Your task to perform on an android device: snooze an email in the gmail app Image 0: 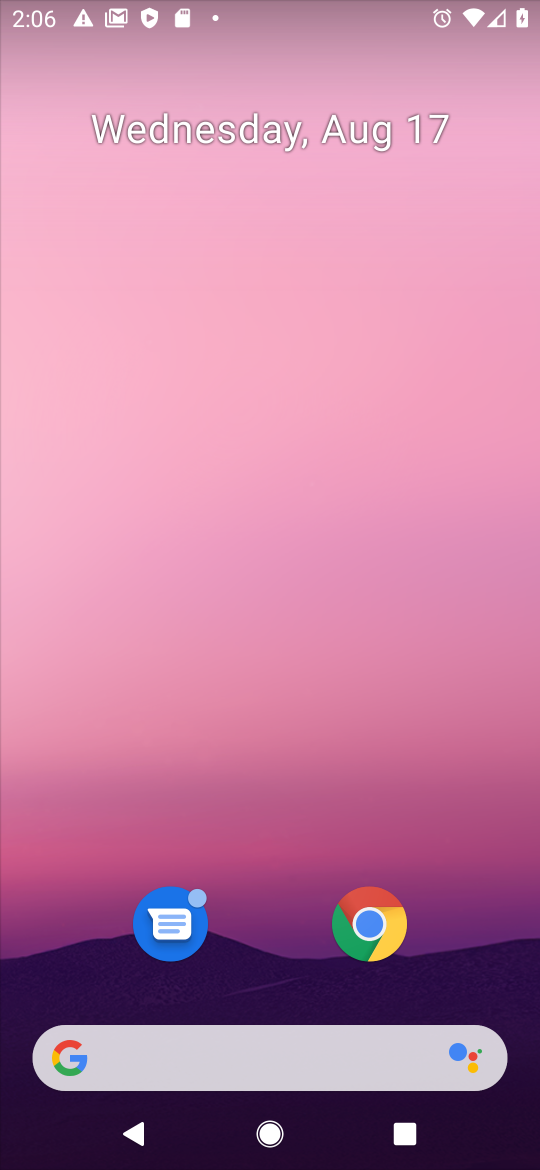
Step 0: drag from (246, 843) to (188, 208)
Your task to perform on an android device: snooze an email in the gmail app Image 1: 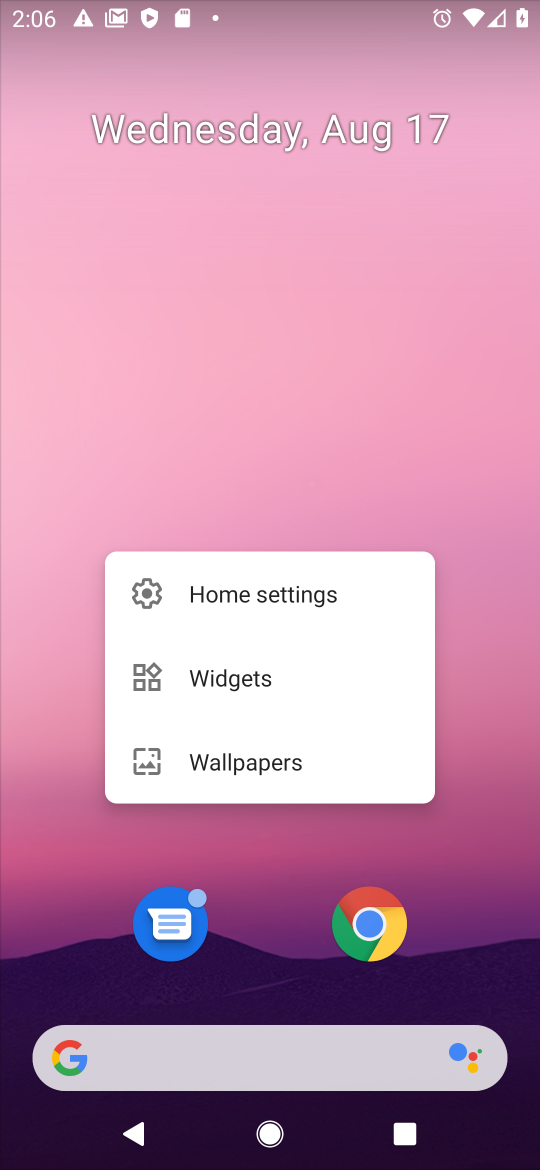
Step 1: click (254, 1001)
Your task to perform on an android device: snooze an email in the gmail app Image 2: 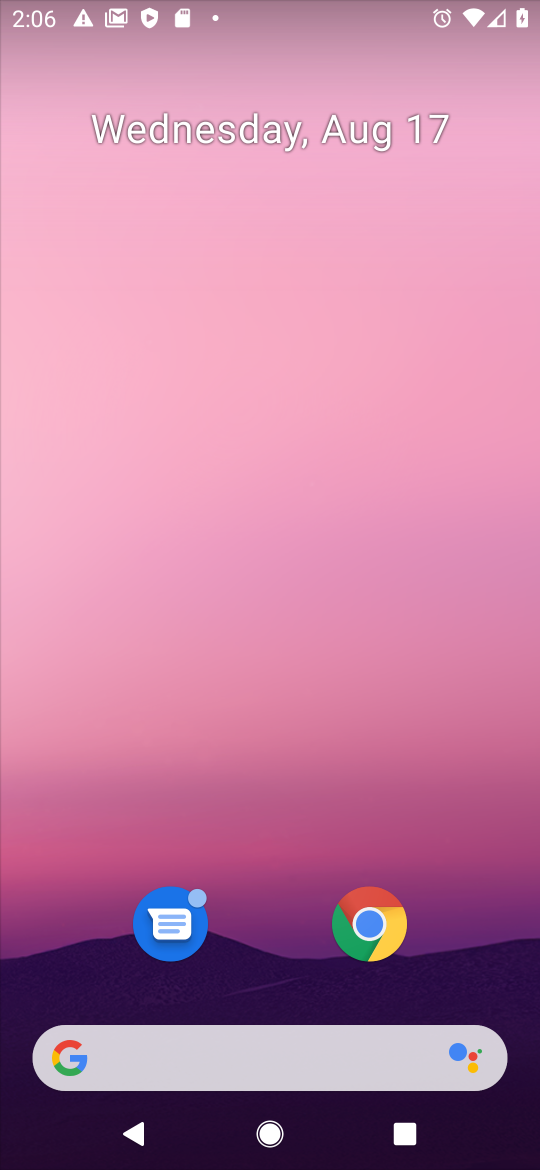
Step 2: drag from (226, 624) to (193, 254)
Your task to perform on an android device: snooze an email in the gmail app Image 3: 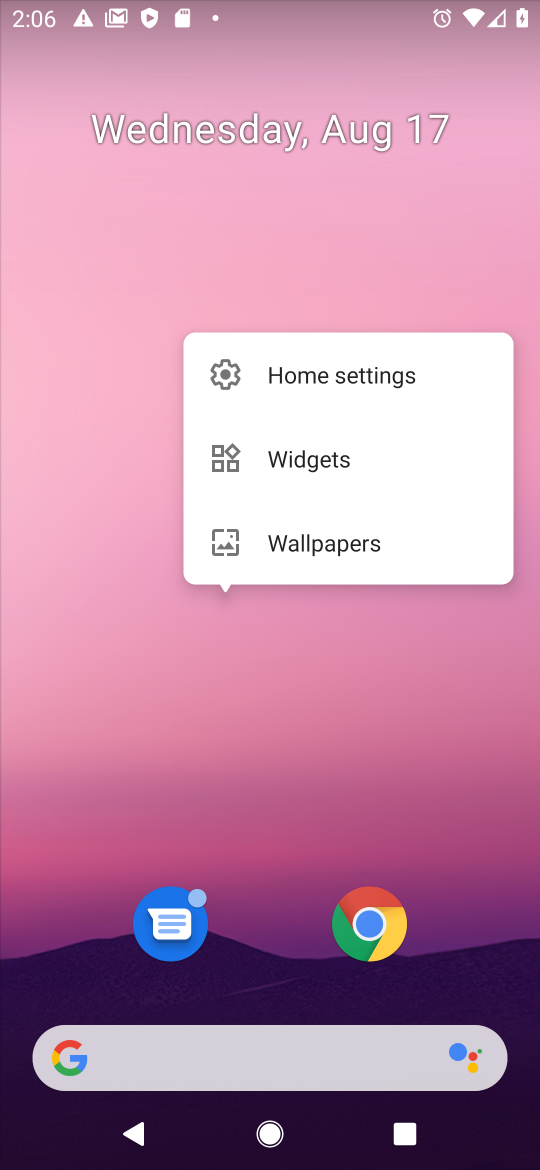
Step 3: click (188, 748)
Your task to perform on an android device: snooze an email in the gmail app Image 4: 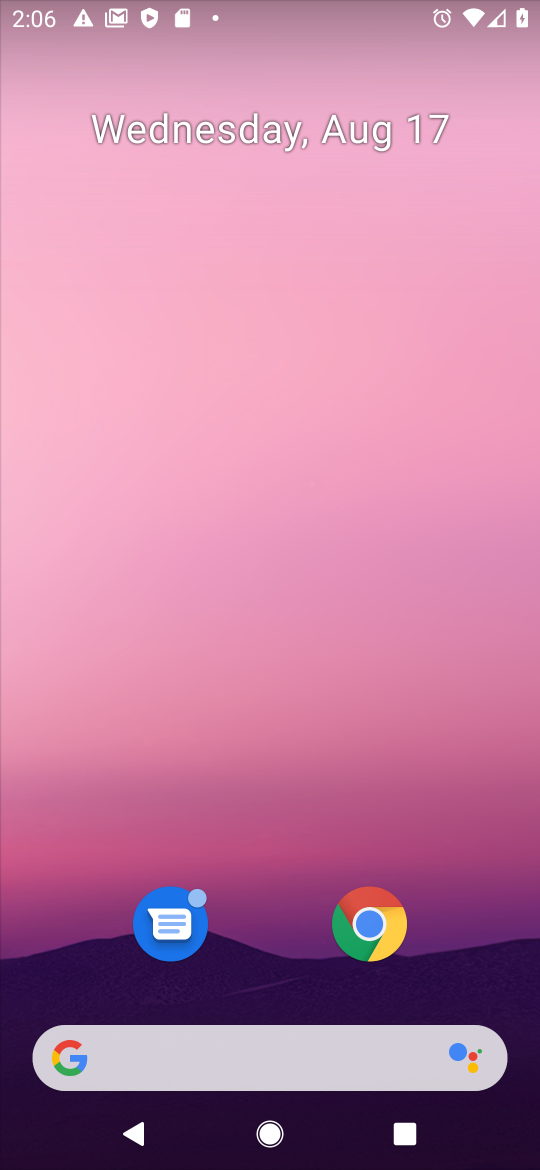
Step 4: drag from (266, 854) to (182, 189)
Your task to perform on an android device: snooze an email in the gmail app Image 5: 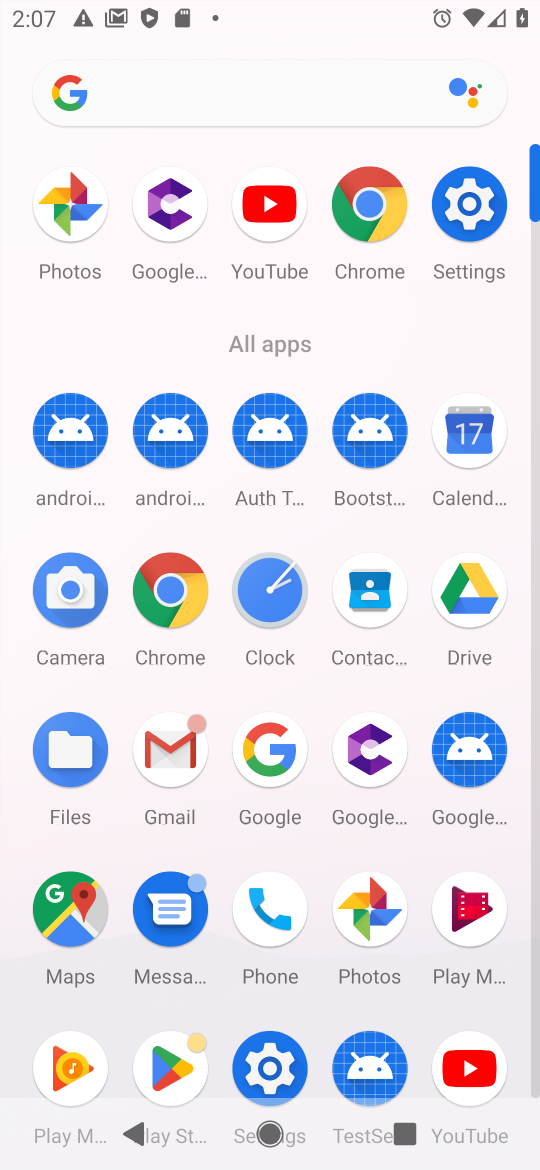
Step 5: click (148, 761)
Your task to perform on an android device: snooze an email in the gmail app Image 6: 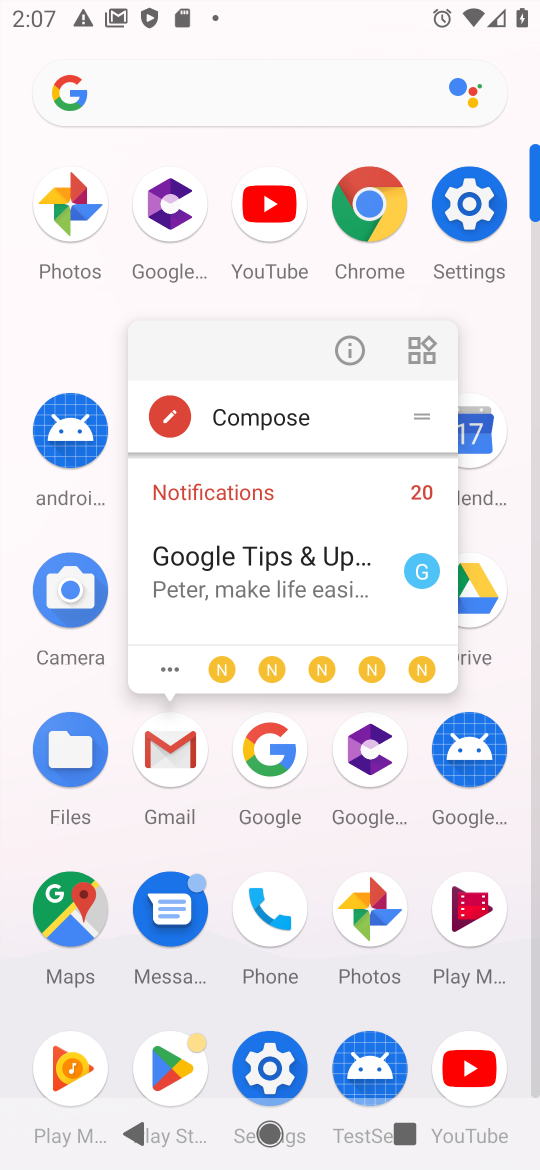
Step 6: click (174, 769)
Your task to perform on an android device: snooze an email in the gmail app Image 7: 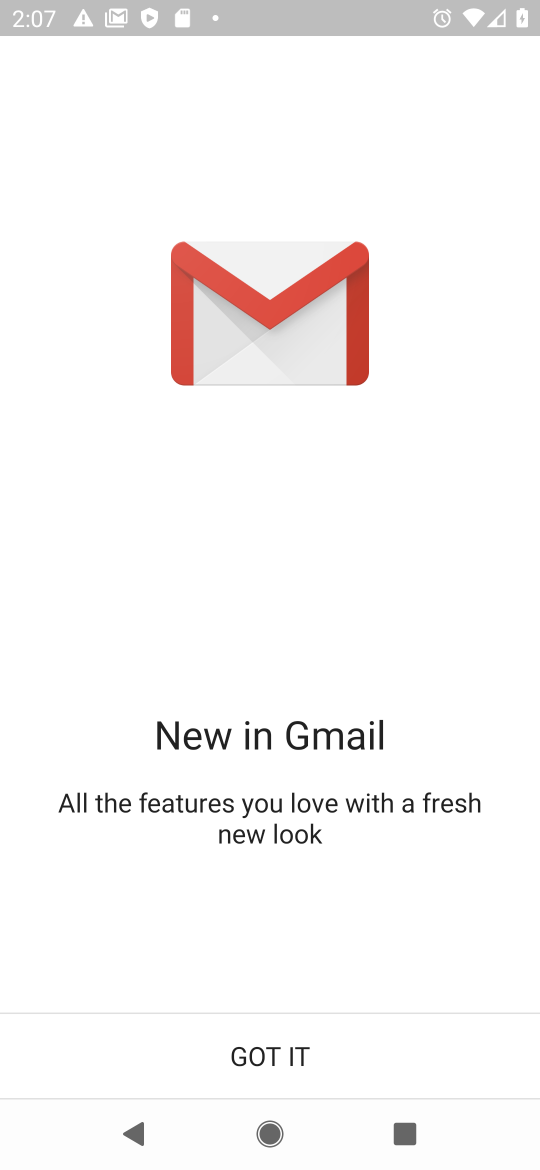
Step 7: click (283, 1049)
Your task to perform on an android device: snooze an email in the gmail app Image 8: 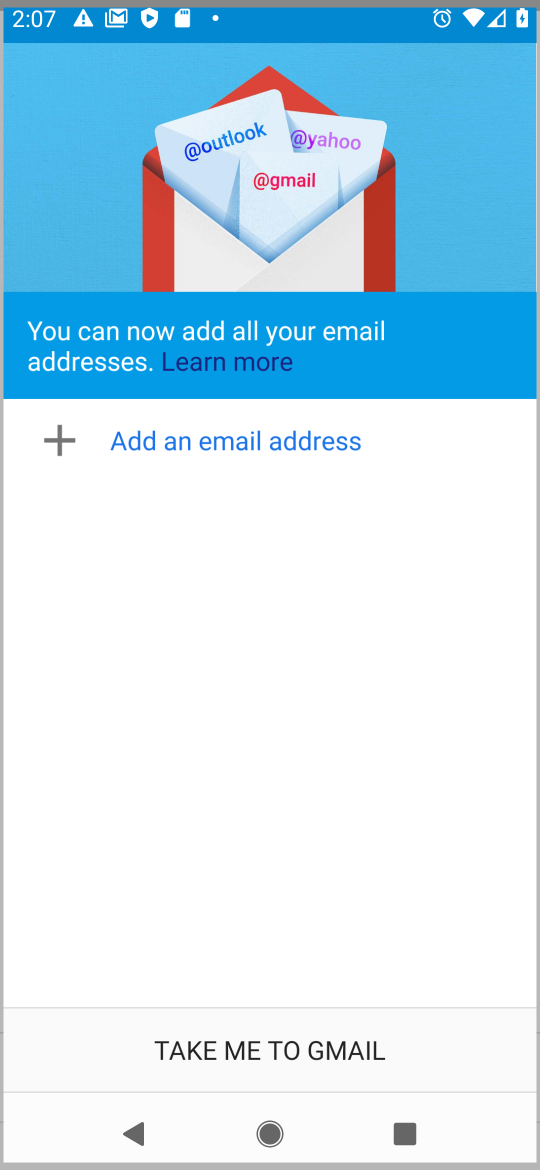
Step 8: click (308, 1045)
Your task to perform on an android device: snooze an email in the gmail app Image 9: 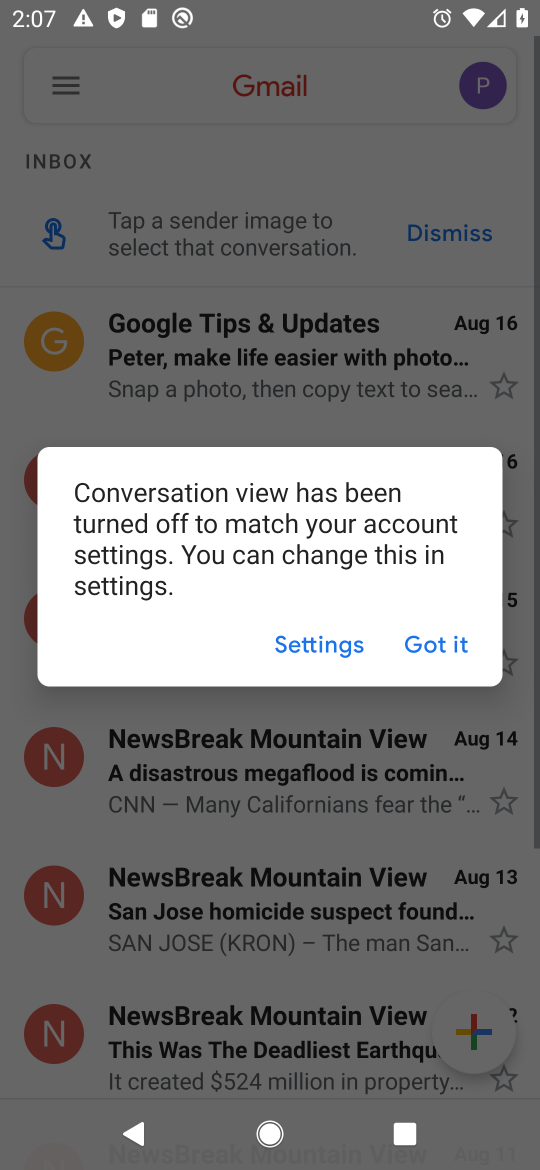
Step 9: click (401, 640)
Your task to perform on an android device: snooze an email in the gmail app Image 10: 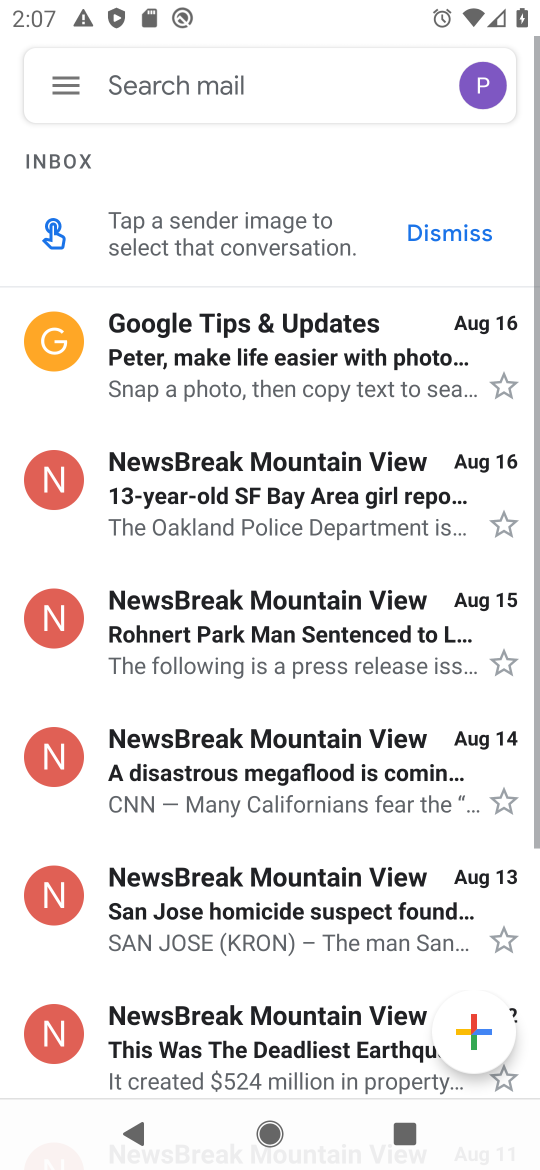
Step 10: click (326, 363)
Your task to perform on an android device: snooze an email in the gmail app Image 11: 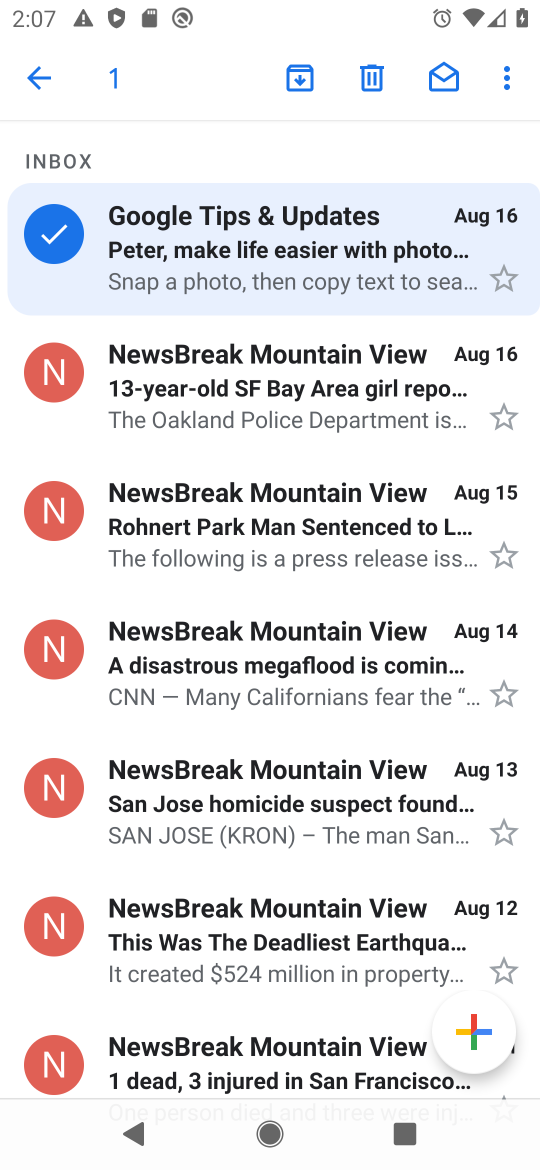
Step 11: click (506, 75)
Your task to perform on an android device: snooze an email in the gmail app Image 12: 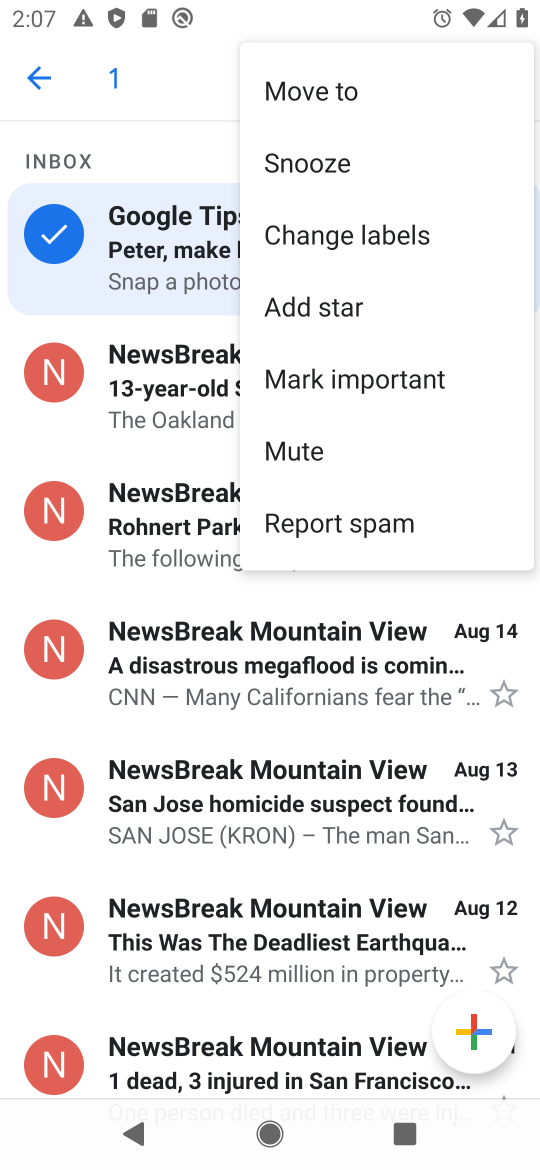
Step 12: click (339, 151)
Your task to perform on an android device: snooze an email in the gmail app Image 13: 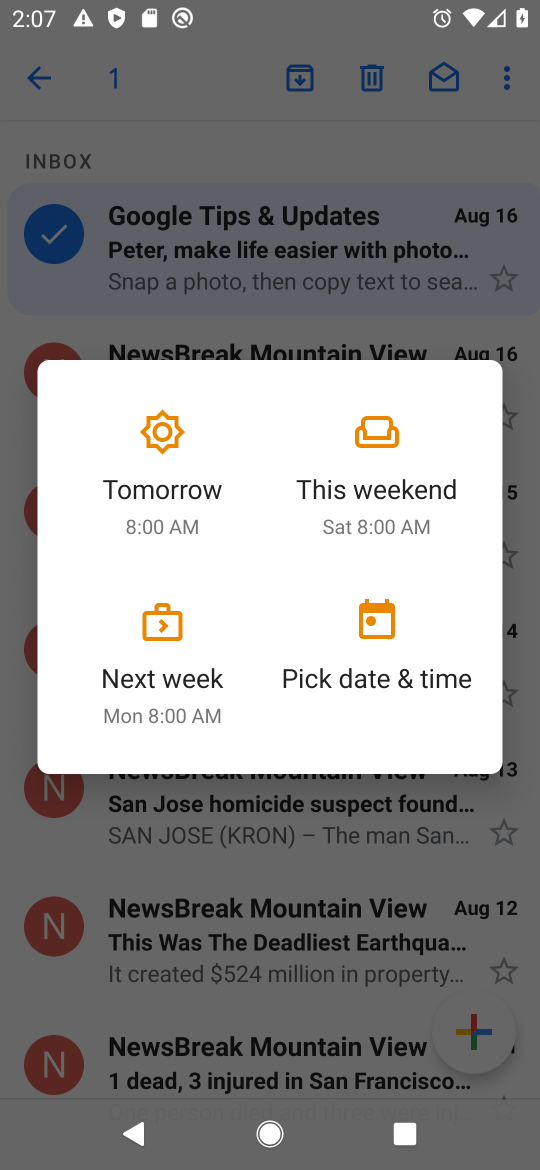
Step 13: click (165, 473)
Your task to perform on an android device: snooze an email in the gmail app Image 14: 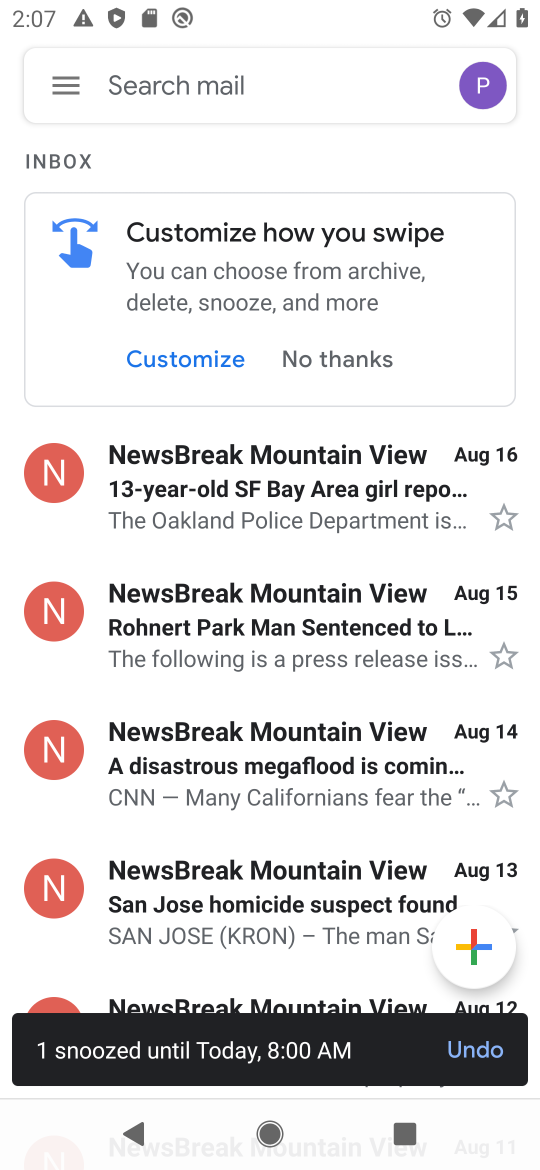
Step 14: task complete